Your task to perform on an android device: turn on translation in the chrome app Image 0: 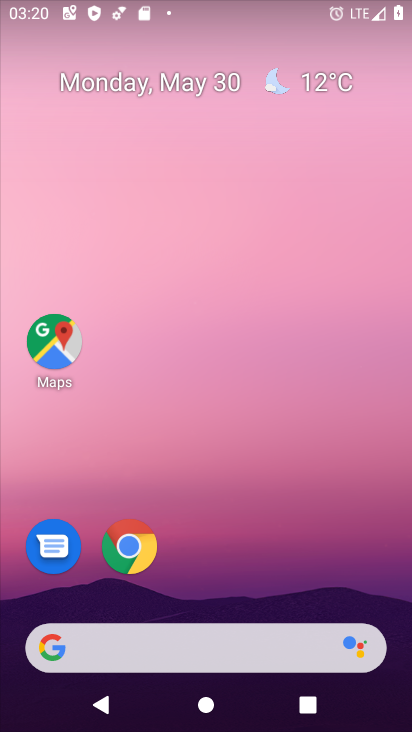
Step 0: press home button
Your task to perform on an android device: turn on translation in the chrome app Image 1: 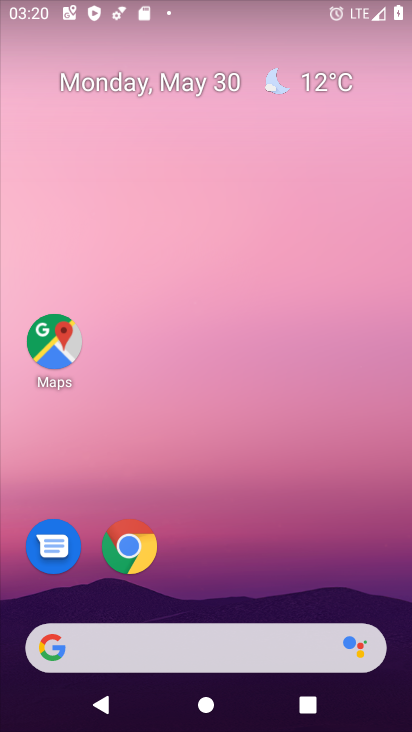
Step 1: click (127, 543)
Your task to perform on an android device: turn on translation in the chrome app Image 2: 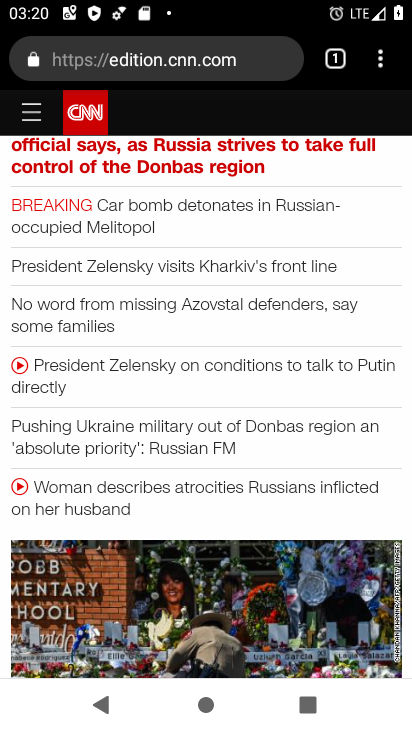
Step 2: click (378, 59)
Your task to perform on an android device: turn on translation in the chrome app Image 3: 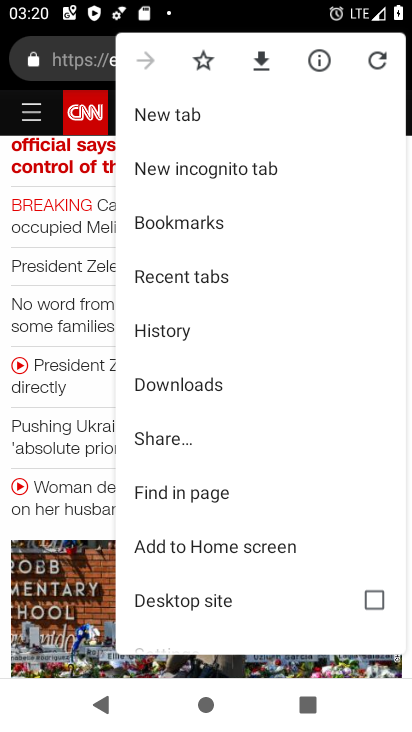
Step 3: drag from (259, 584) to (252, 114)
Your task to perform on an android device: turn on translation in the chrome app Image 4: 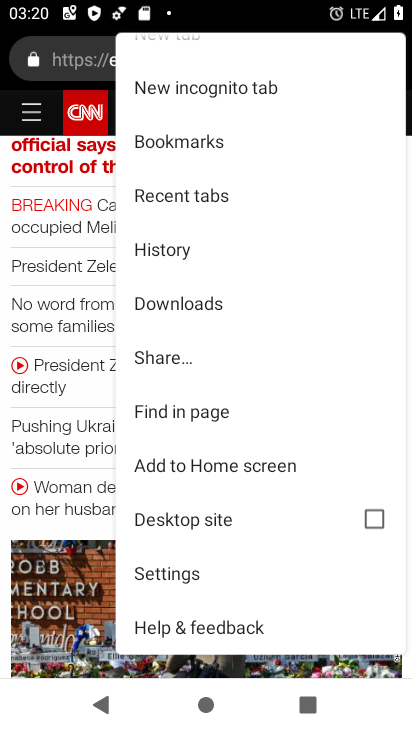
Step 4: click (205, 572)
Your task to perform on an android device: turn on translation in the chrome app Image 5: 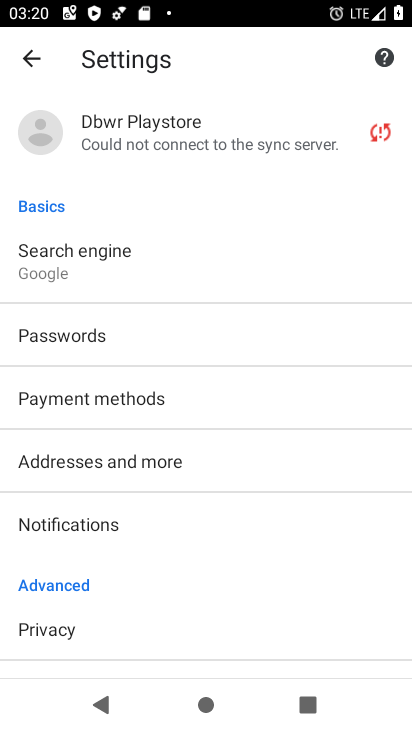
Step 5: drag from (173, 642) to (170, 126)
Your task to perform on an android device: turn on translation in the chrome app Image 6: 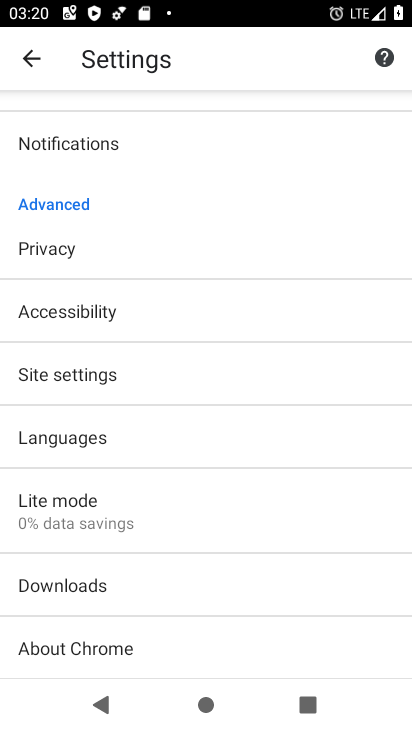
Step 6: click (120, 442)
Your task to perform on an android device: turn on translation in the chrome app Image 7: 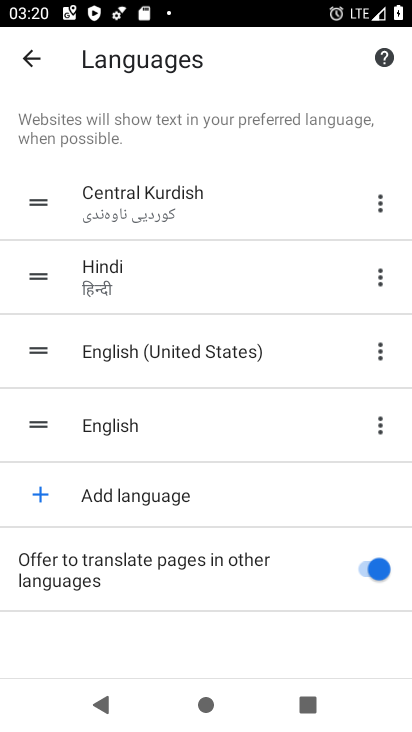
Step 7: click (367, 561)
Your task to perform on an android device: turn on translation in the chrome app Image 8: 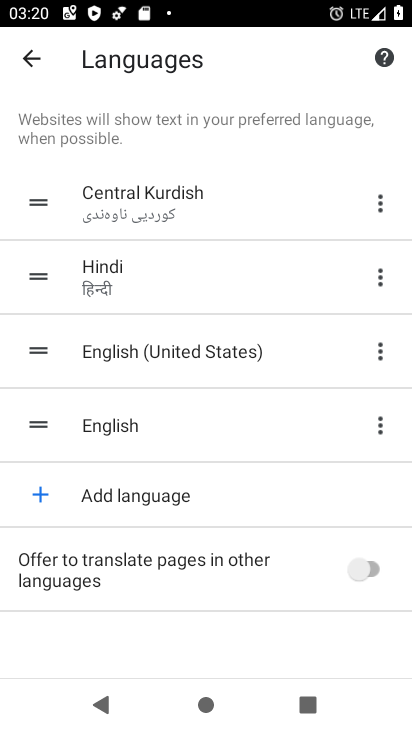
Step 8: click (374, 564)
Your task to perform on an android device: turn on translation in the chrome app Image 9: 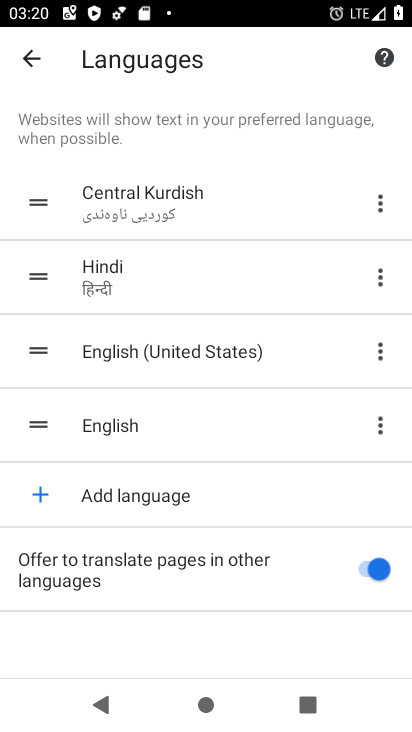
Step 9: task complete